Your task to perform on an android device: Search for the best rated tool bag on Lowe's. Image 0: 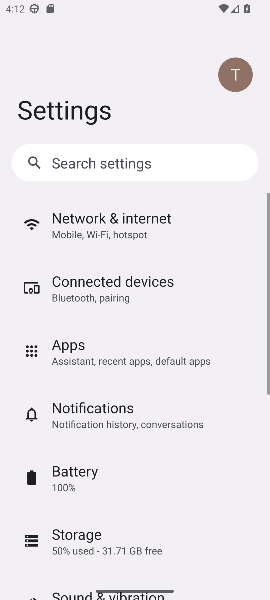
Step 0: press home button
Your task to perform on an android device: Search for the best rated tool bag on Lowe's. Image 1: 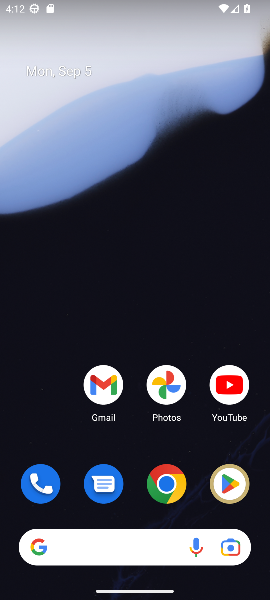
Step 1: click (169, 483)
Your task to perform on an android device: Search for the best rated tool bag on Lowe's. Image 2: 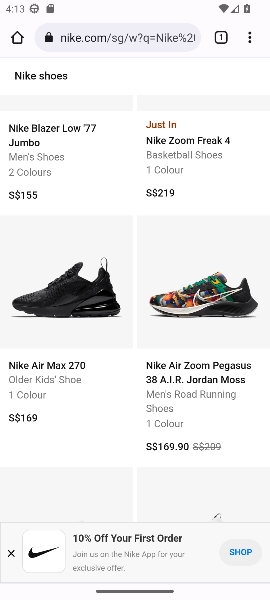
Step 2: click (146, 34)
Your task to perform on an android device: Search for the best rated tool bag on Lowe's. Image 3: 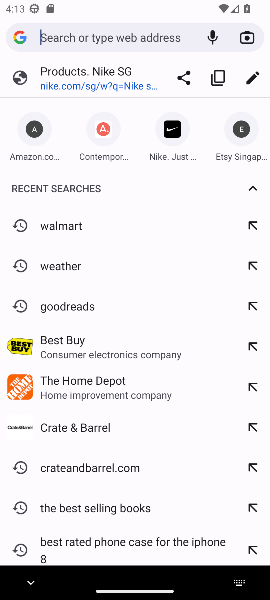
Step 3: type " Lowe's"
Your task to perform on an android device: Search for the best rated tool bag on Lowe's. Image 4: 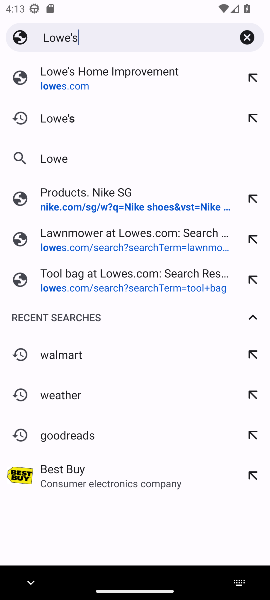
Step 4: press enter
Your task to perform on an android device: Search for the best rated tool bag on Lowe's. Image 5: 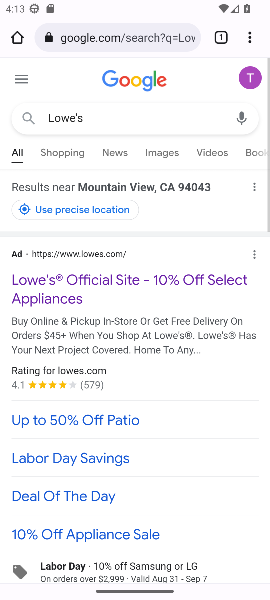
Step 5: drag from (133, 527) to (198, 246)
Your task to perform on an android device: Search for the best rated tool bag on Lowe's. Image 6: 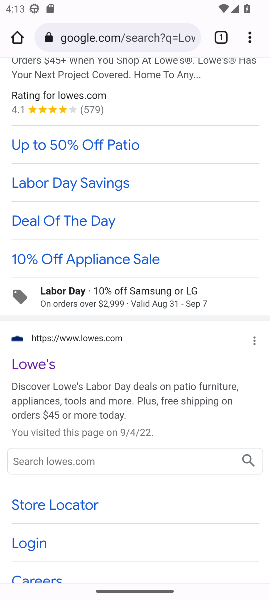
Step 6: click (13, 364)
Your task to perform on an android device: Search for the best rated tool bag on Lowe's. Image 7: 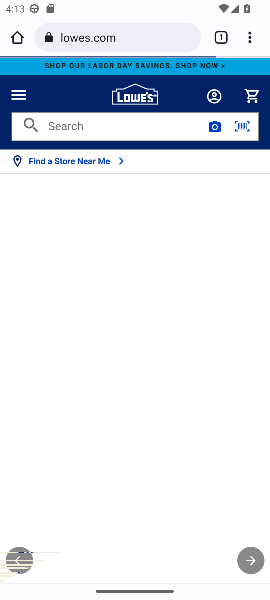
Step 7: click (116, 128)
Your task to perform on an android device: Search for the best rated tool bag on Lowe's. Image 8: 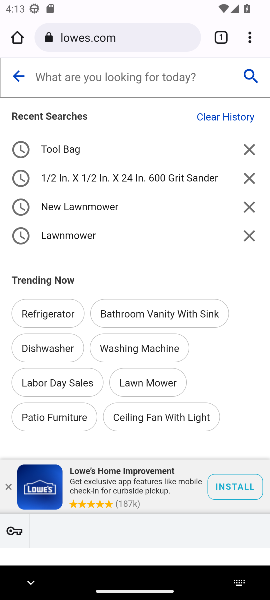
Step 8: type " tool bag"
Your task to perform on an android device: Search for the best rated tool bag on Lowe's. Image 9: 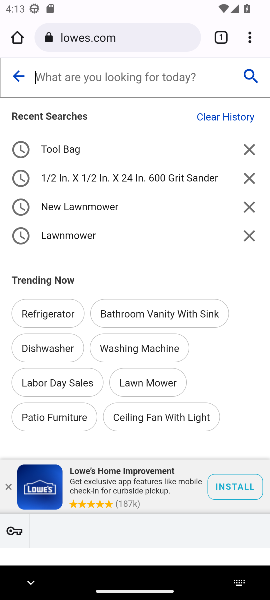
Step 9: press enter
Your task to perform on an android device: Search for the best rated tool bag on Lowe's. Image 10: 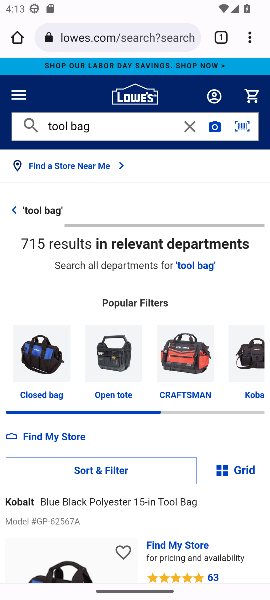
Step 10: task complete